Your task to perform on an android device: Open the phone app and click the voicemail tab. Image 0: 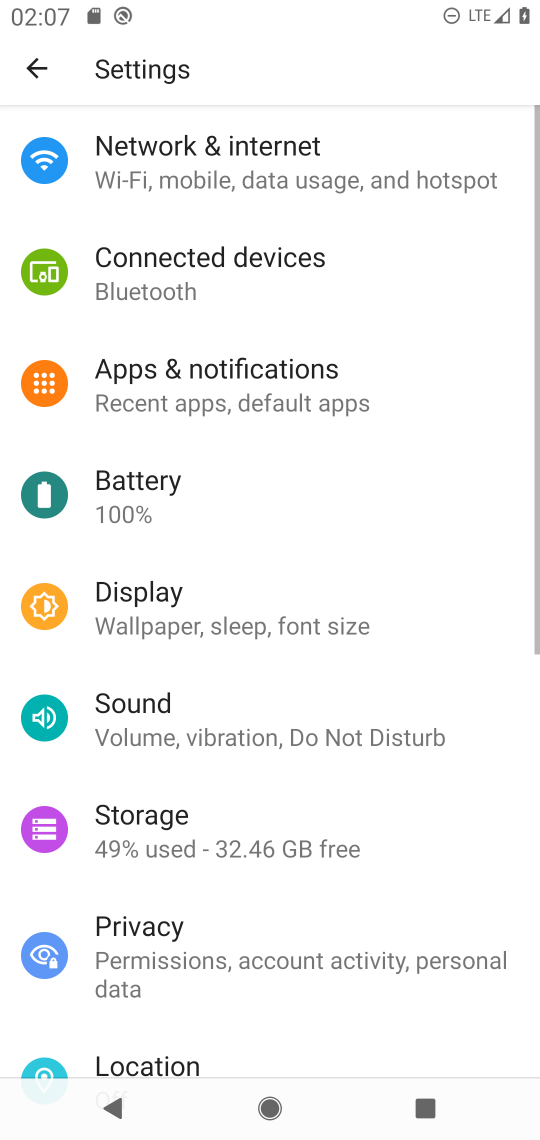
Step 0: press home button
Your task to perform on an android device: Open the phone app and click the voicemail tab. Image 1: 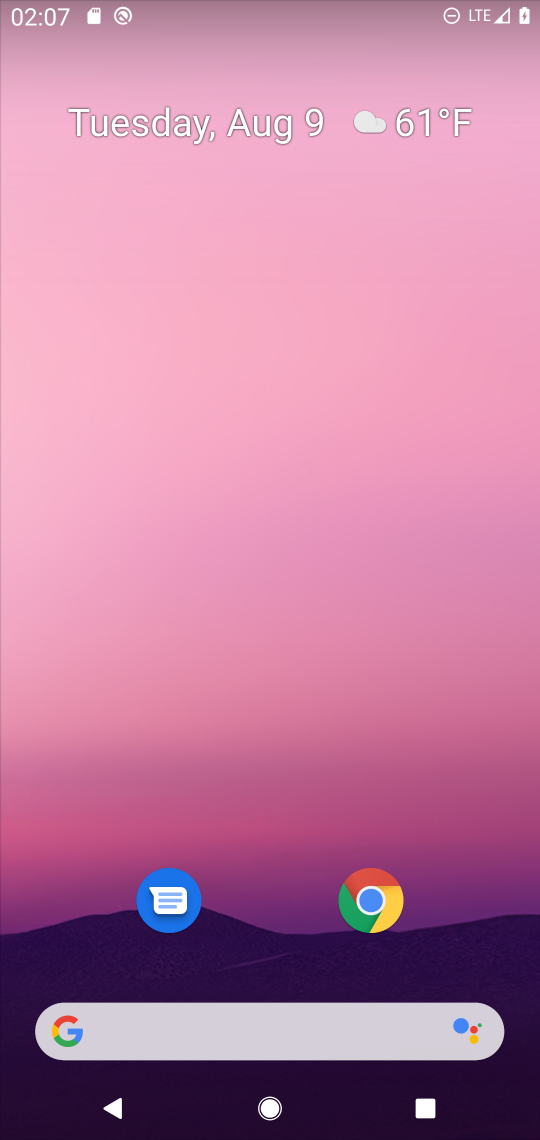
Step 1: drag from (275, 953) to (318, 208)
Your task to perform on an android device: Open the phone app and click the voicemail tab. Image 2: 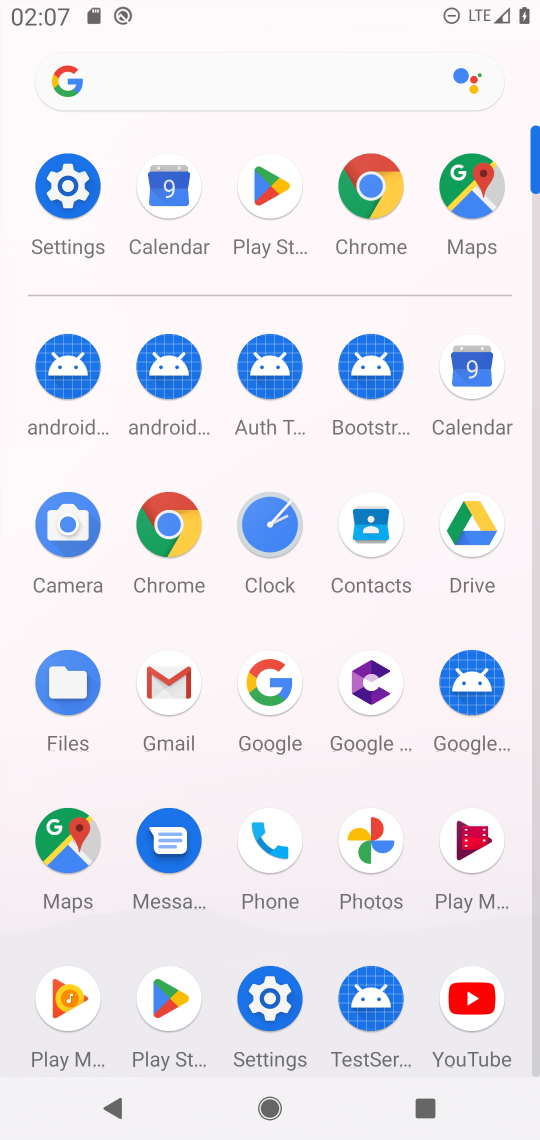
Step 2: click (467, 844)
Your task to perform on an android device: Open the phone app and click the voicemail tab. Image 3: 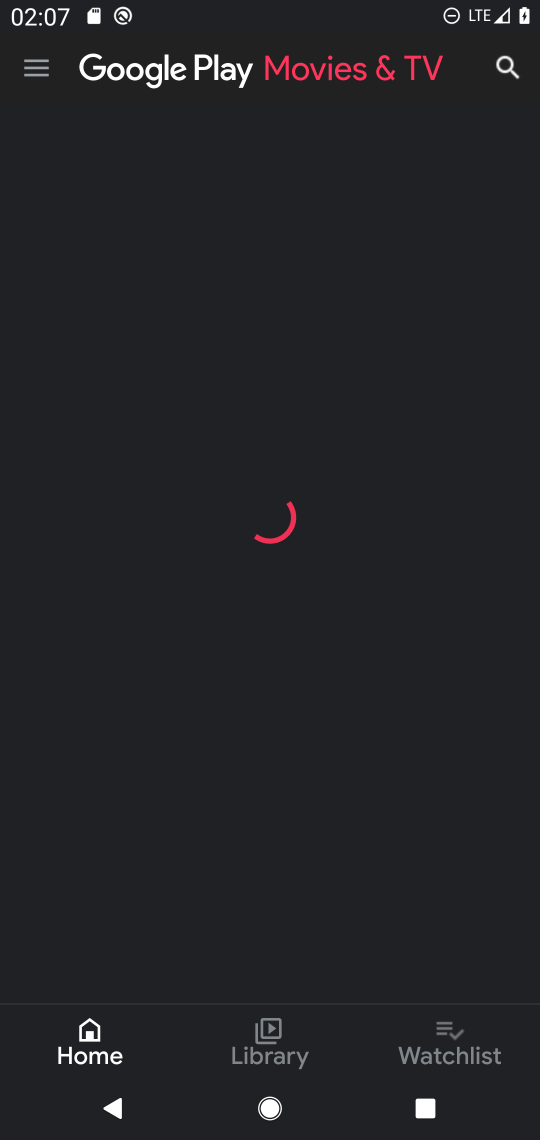
Step 3: click (434, 1043)
Your task to perform on an android device: Open the phone app and click the voicemail tab. Image 4: 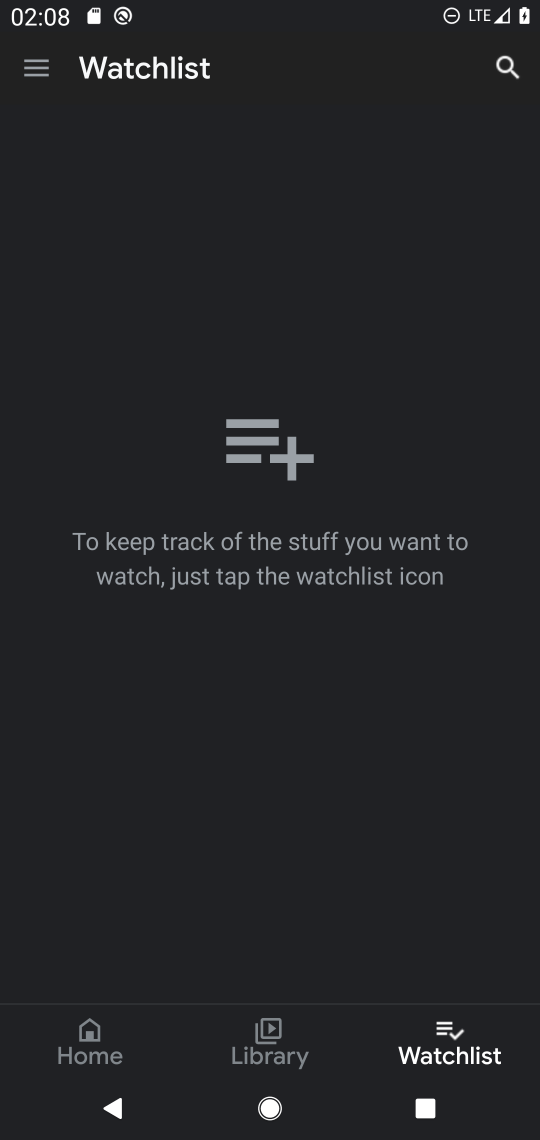
Step 4: task complete